Your task to perform on an android device: Show the shopping cart on bestbuy.com. Add "razer blade" to the cart on bestbuy.com, then select checkout. Image 0: 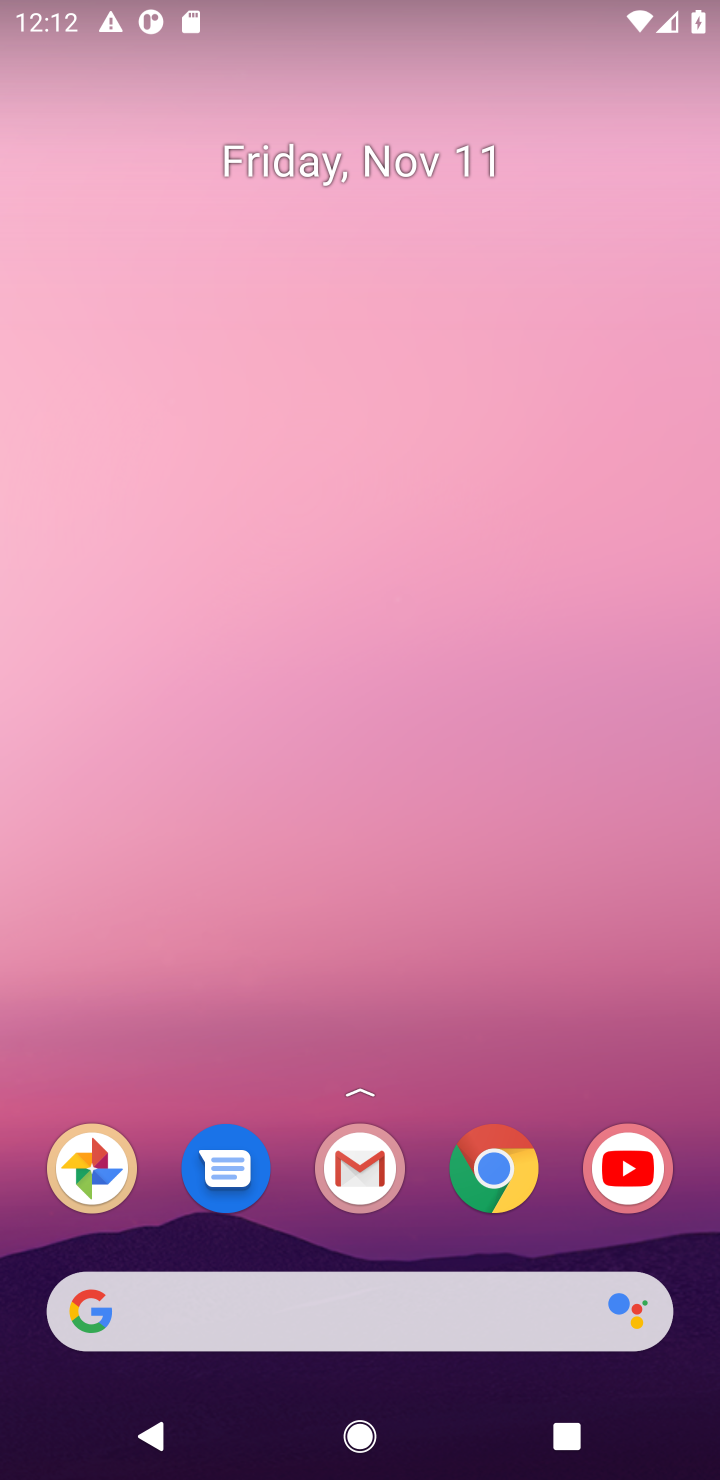
Step 0: click (481, 1174)
Your task to perform on an android device: Show the shopping cart on bestbuy.com. Add "razer blade" to the cart on bestbuy.com, then select checkout. Image 1: 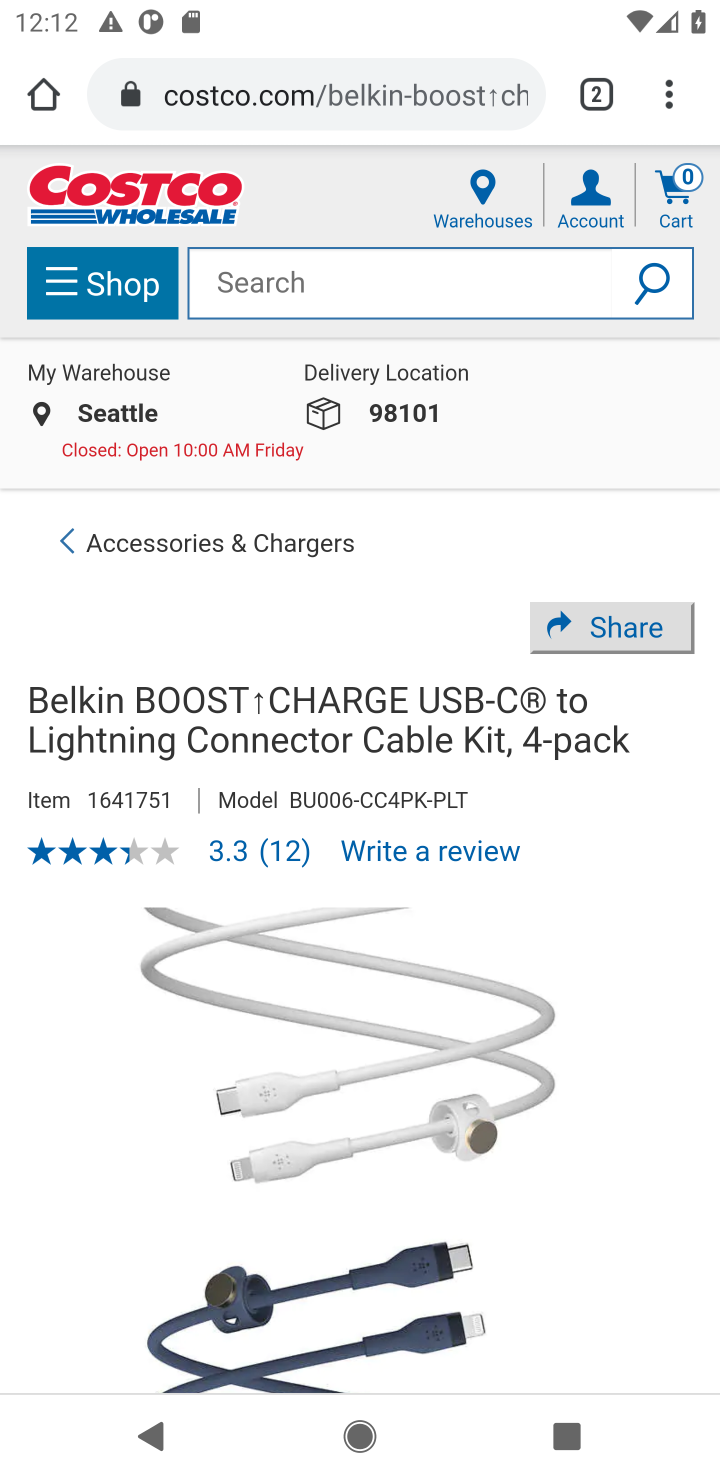
Step 1: click (340, 93)
Your task to perform on an android device: Show the shopping cart on bestbuy.com. Add "razer blade" to the cart on bestbuy.com, then select checkout. Image 2: 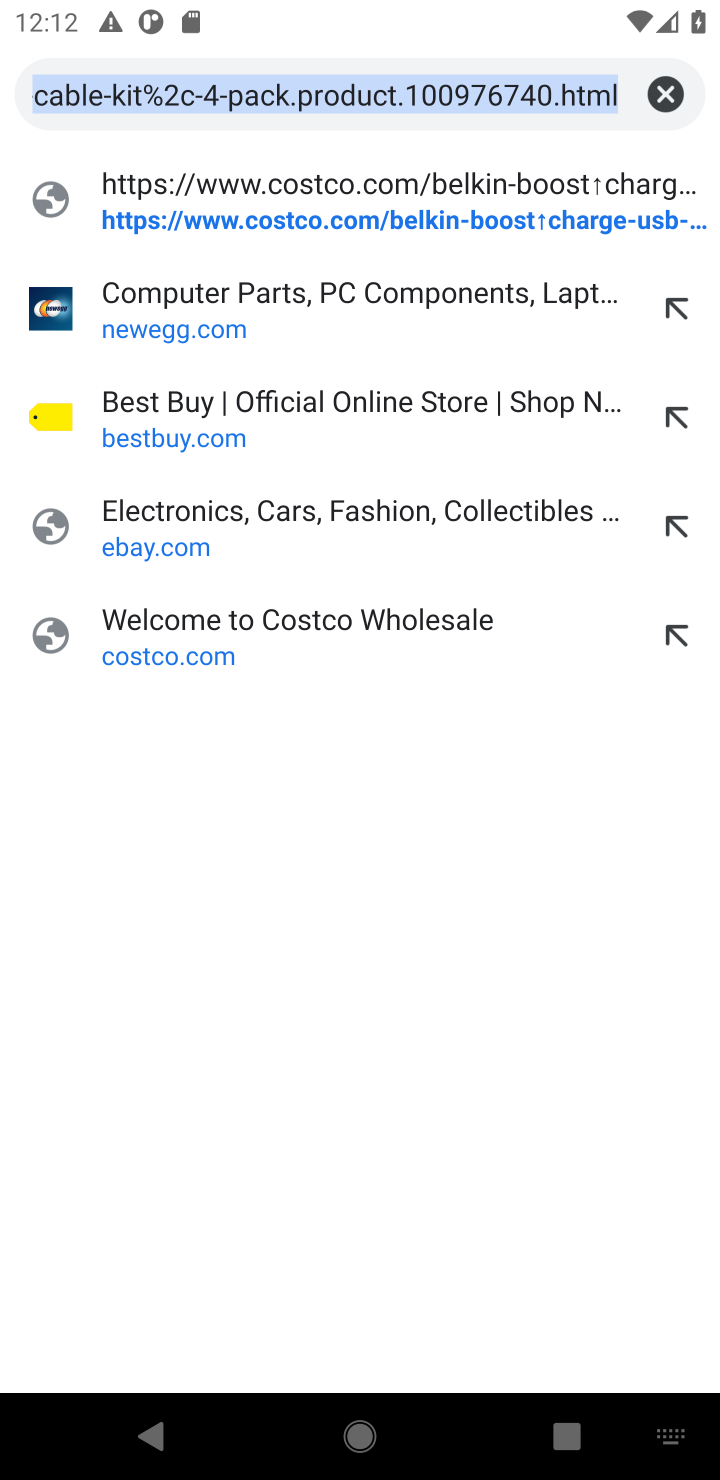
Step 2: click (148, 422)
Your task to perform on an android device: Show the shopping cart on bestbuy.com. Add "razer blade" to the cart on bestbuy.com, then select checkout. Image 3: 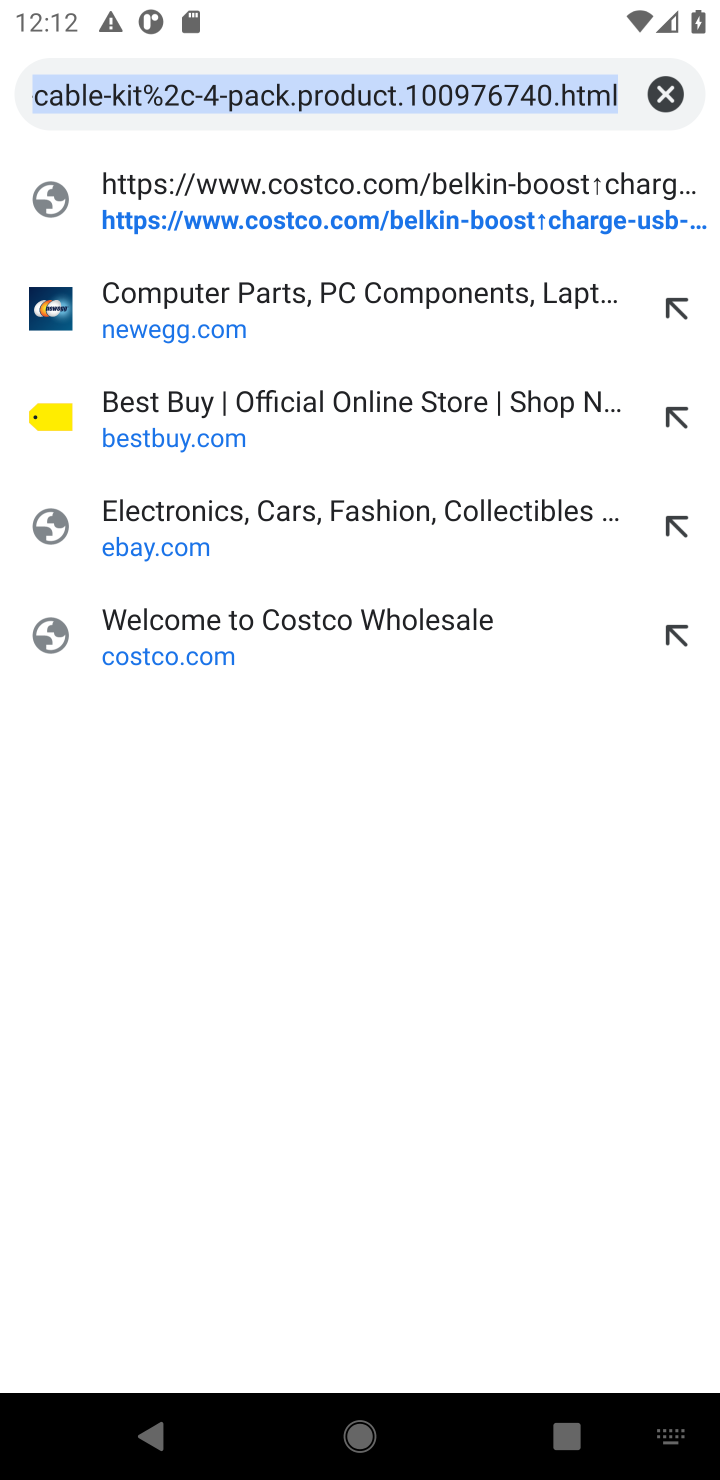
Step 3: click (148, 422)
Your task to perform on an android device: Show the shopping cart on bestbuy.com. Add "razer blade" to the cart on bestbuy.com, then select checkout. Image 4: 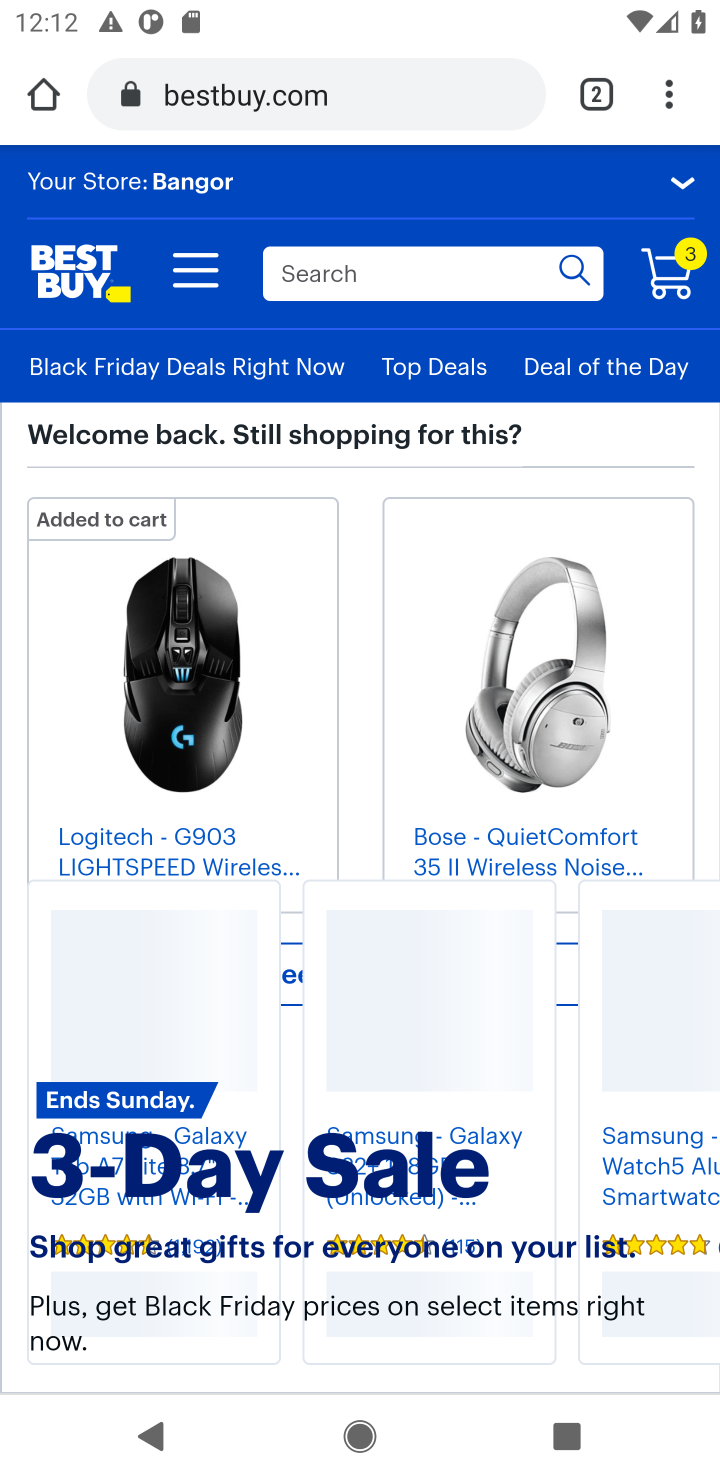
Step 4: click (328, 288)
Your task to perform on an android device: Show the shopping cart on bestbuy.com. Add "razer blade" to the cart on bestbuy.com, then select checkout. Image 5: 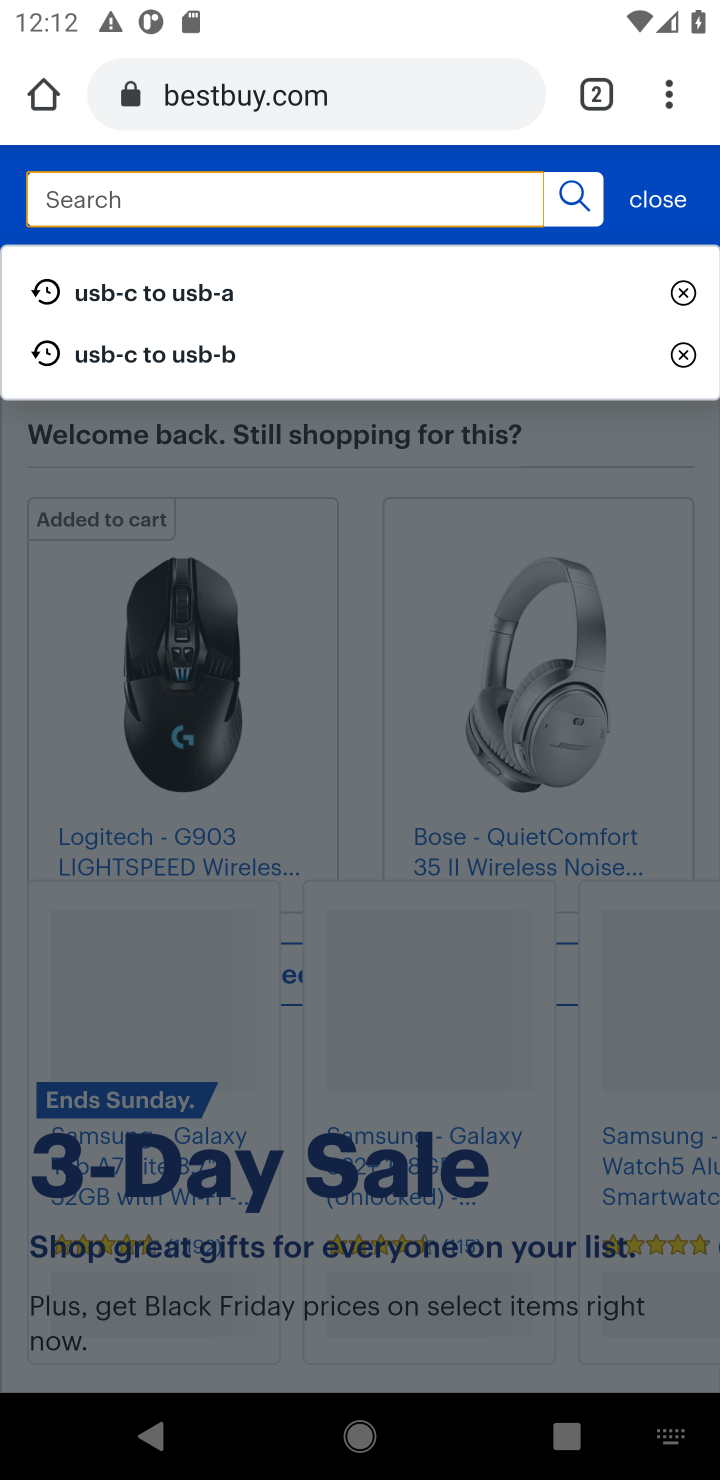
Step 5: click (639, 210)
Your task to perform on an android device: Show the shopping cart on bestbuy.com. Add "razer blade" to the cart on bestbuy.com, then select checkout. Image 6: 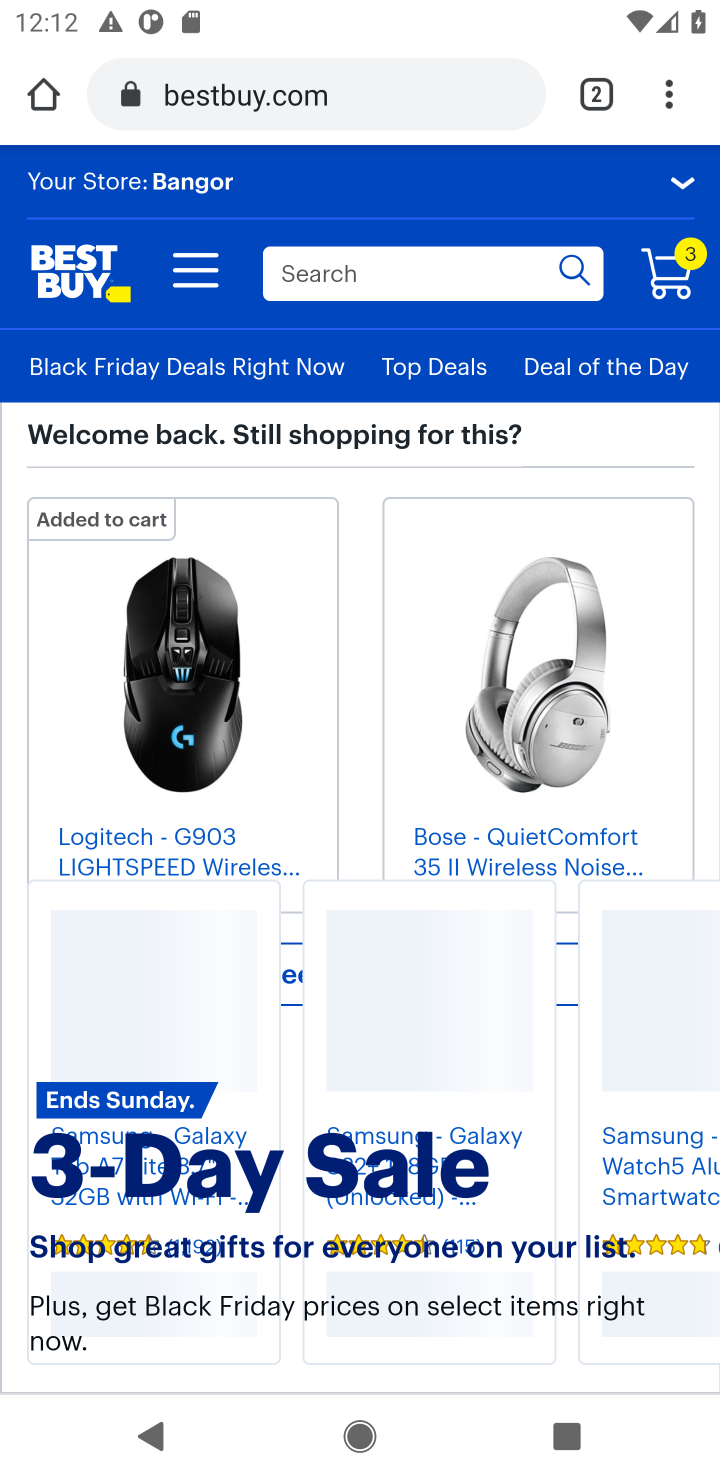
Step 6: click (661, 251)
Your task to perform on an android device: Show the shopping cart on bestbuy.com. Add "razer blade" to the cart on bestbuy.com, then select checkout. Image 7: 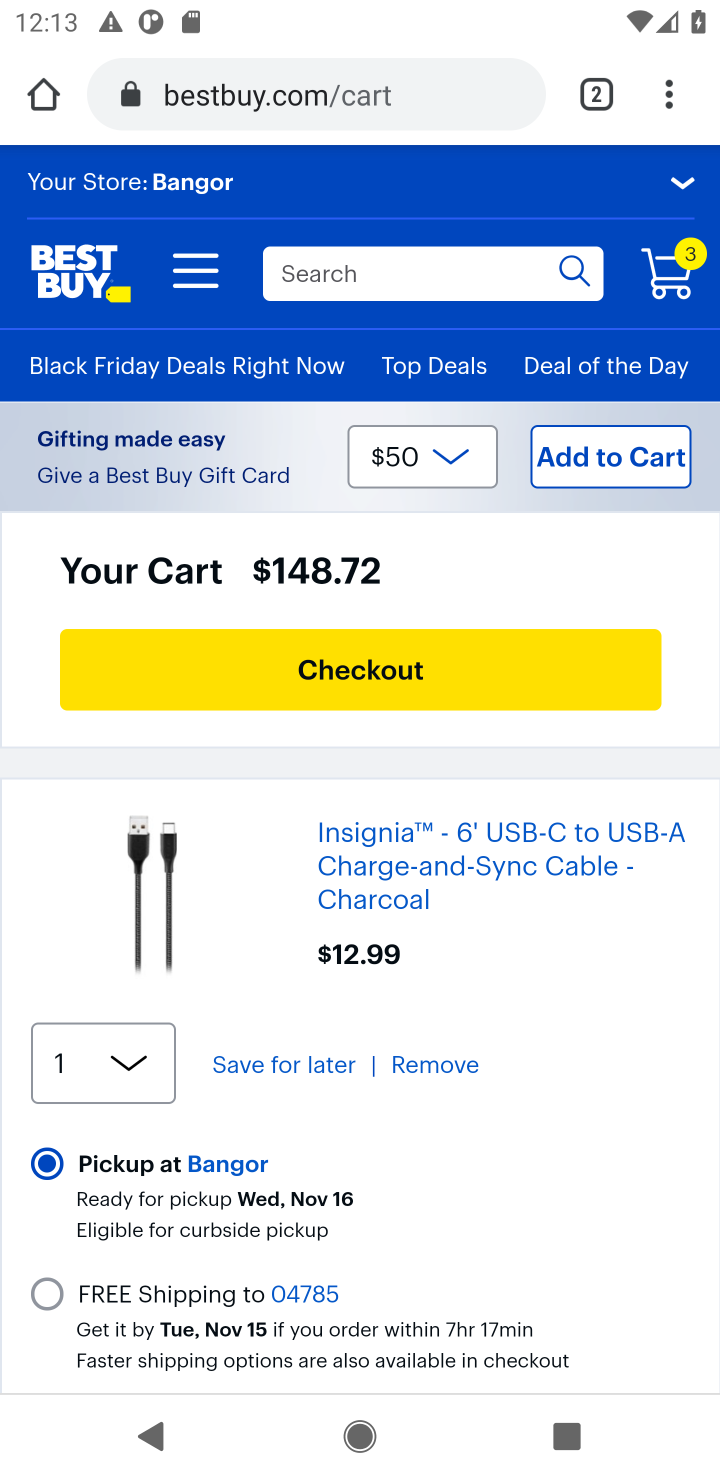
Step 7: drag from (475, 1022) to (494, 707)
Your task to perform on an android device: Show the shopping cart on bestbuy.com. Add "razer blade" to the cart on bestbuy.com, then select checkout. Image 8: 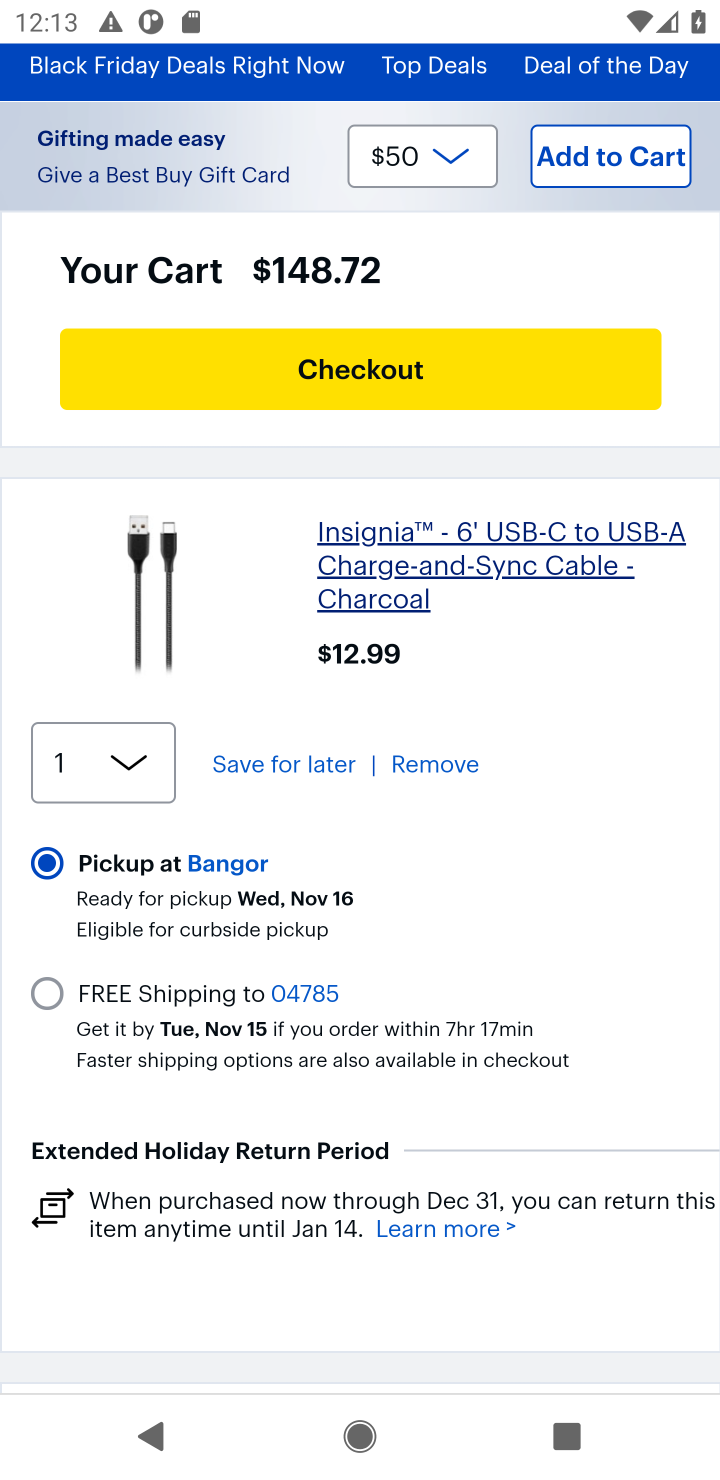
Step 8: drag from (564, 360) to (588, 876)
Your task to perform on an android device: Show the shopping cart on bestbuy.com. Add "razer blade" to the cart on bestbuy.com, then select checkout. Image 9: 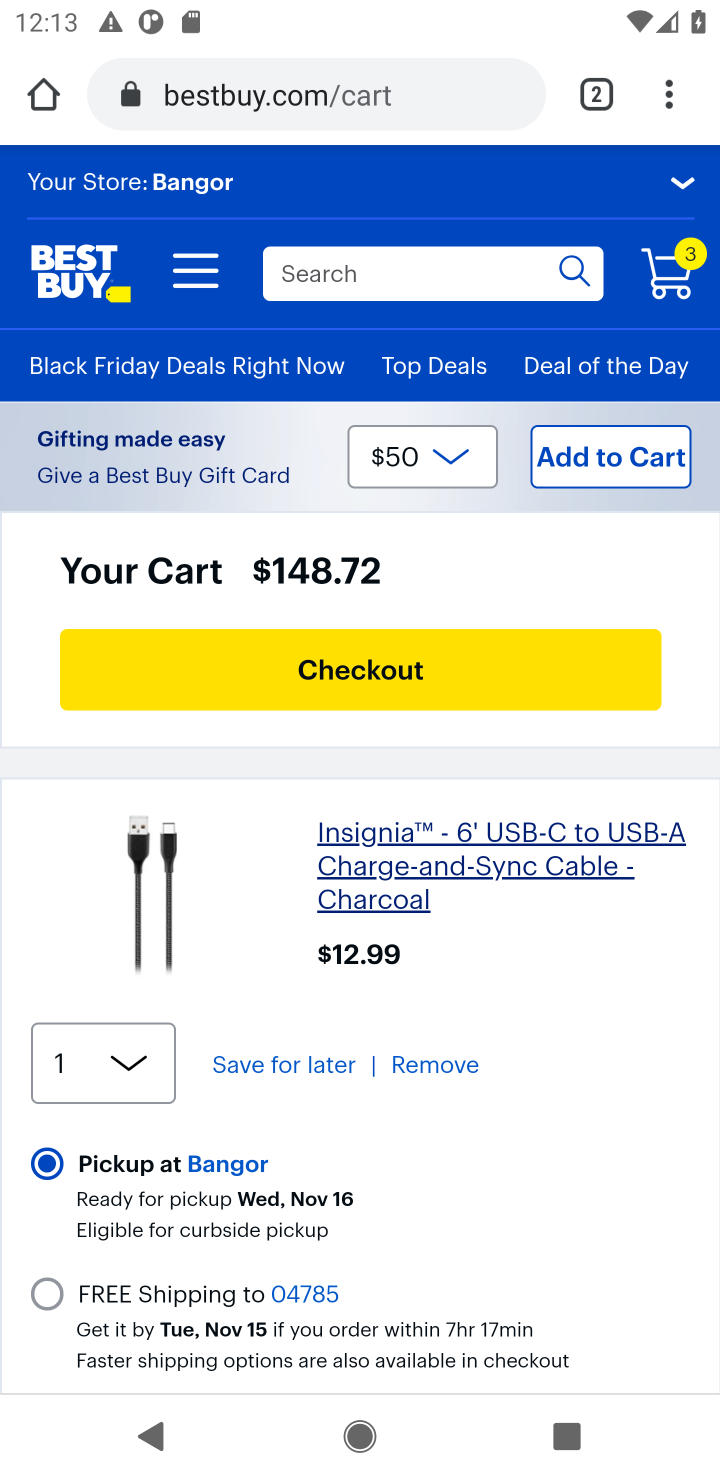
Step 9: click (309, 282)
Your task to perform on an android device: Show the shopping cart on bestbuy.com. Add "razer blade" to the cart on bestbuy.com, then select checkout. Image 10: 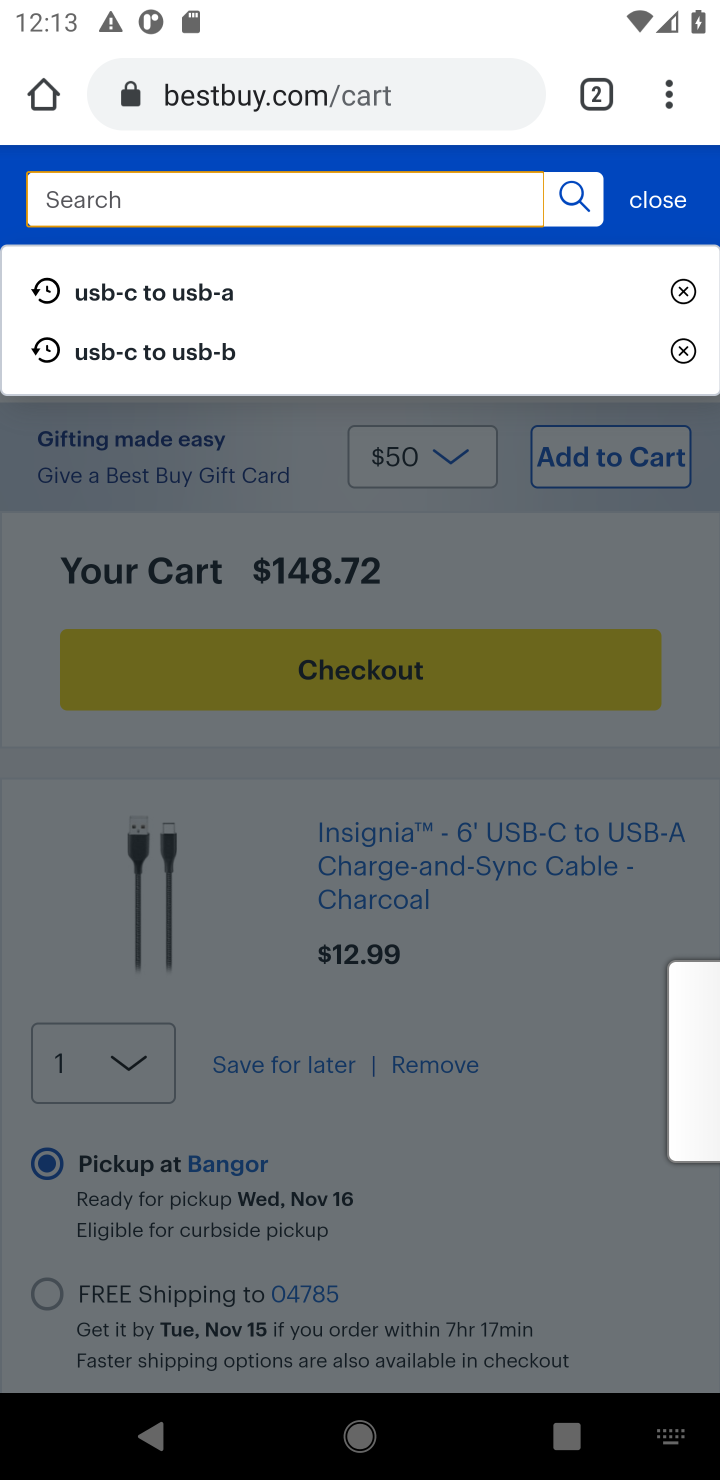
Step 10: type "razer blade"
Your task to perform on an android device: Show the shopping cart on bestbuy.com. Add "razer blade" to the cart on bestbuy.com, then select checkout. Image 11: 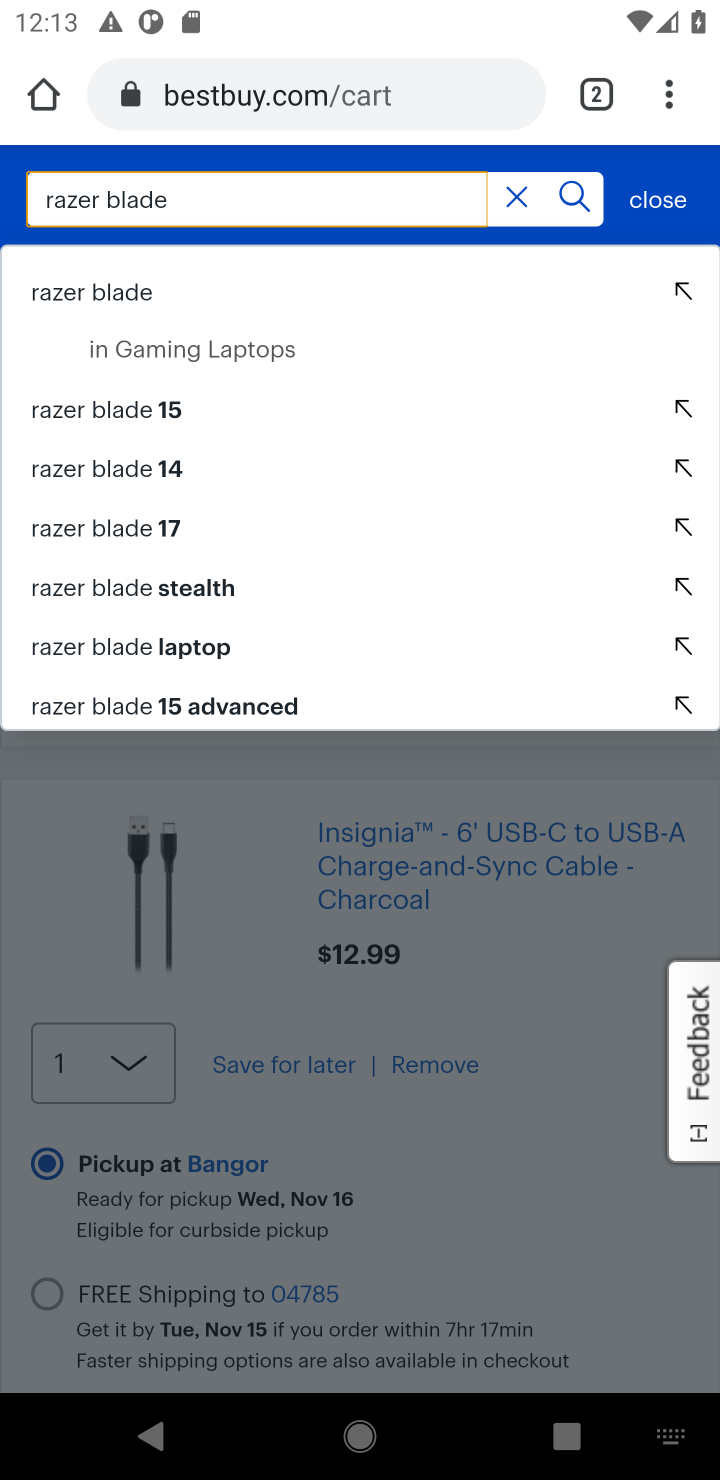
Step 11: click (84, 304)
Your task to perform on an android device: Show the shopping cart on bestbuy.com. Add "razer blade" to the cart on bestbuy.com, then select checkout. Image 12: 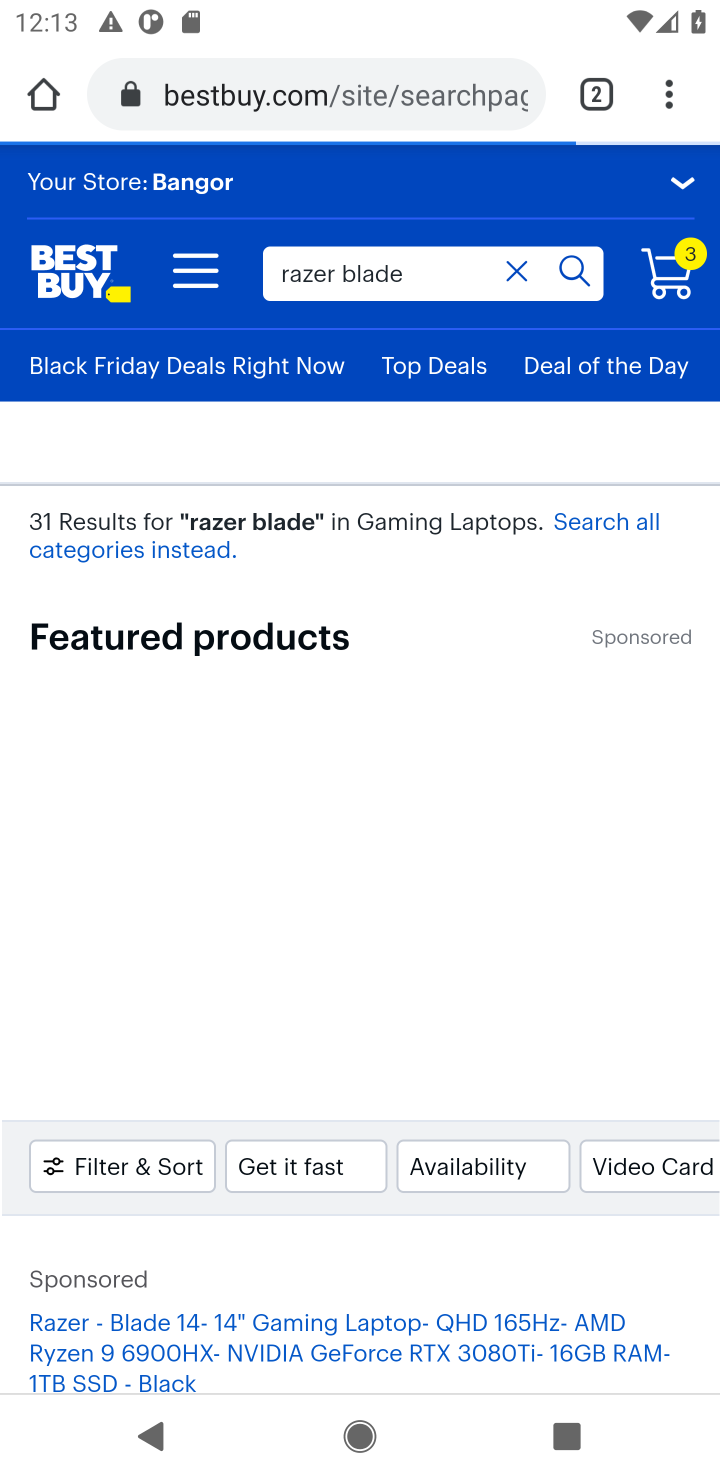
Step 12: click (676, 279)
Your task to perform on an android device: Show the shopping cart on bestbuy.com. Add "razer blade" to the cart on bestbuy.com, then select checkout. Image 13: 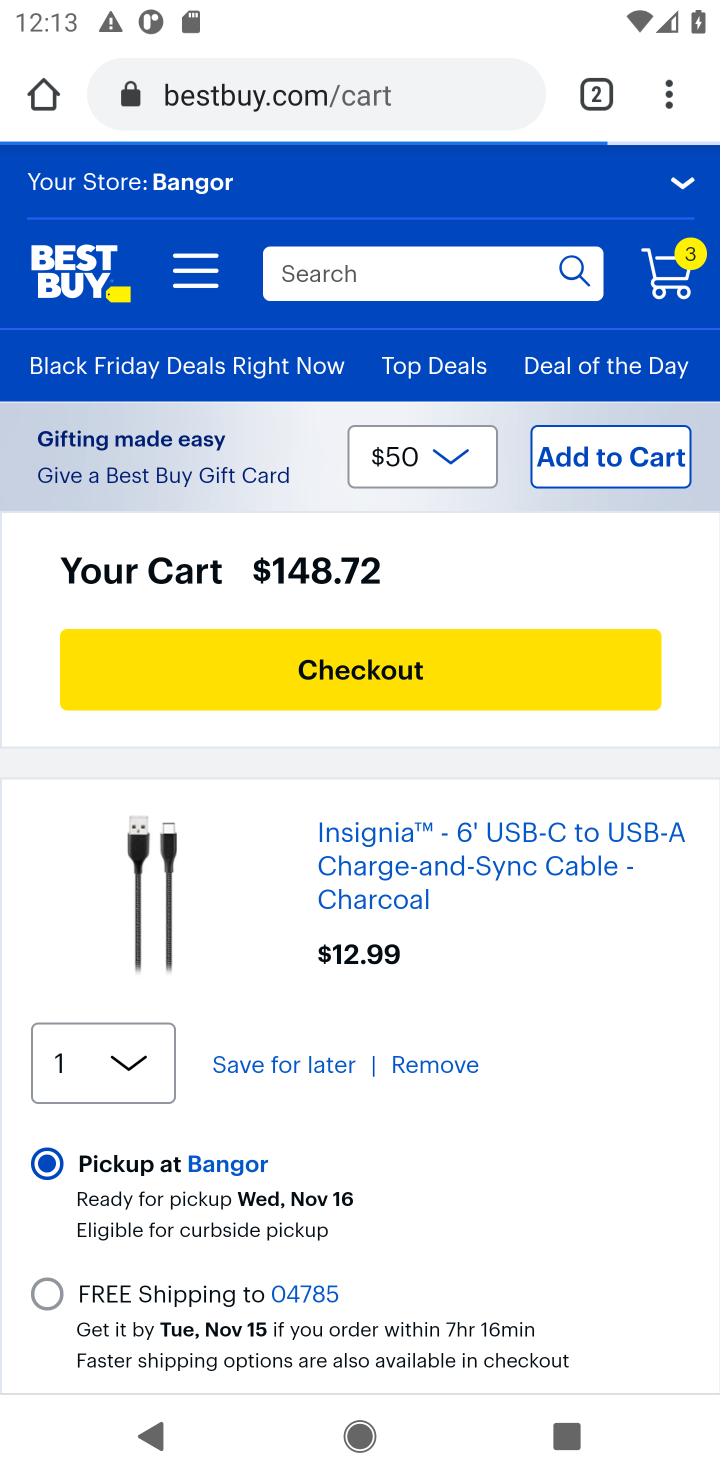
Step 13: click (359, 677)
Your task to perform on an android device: Show the shopping cart on bestbuy.com. Add "razer blade" to the cart on bestbuy.com, then select checkout. Image 14: 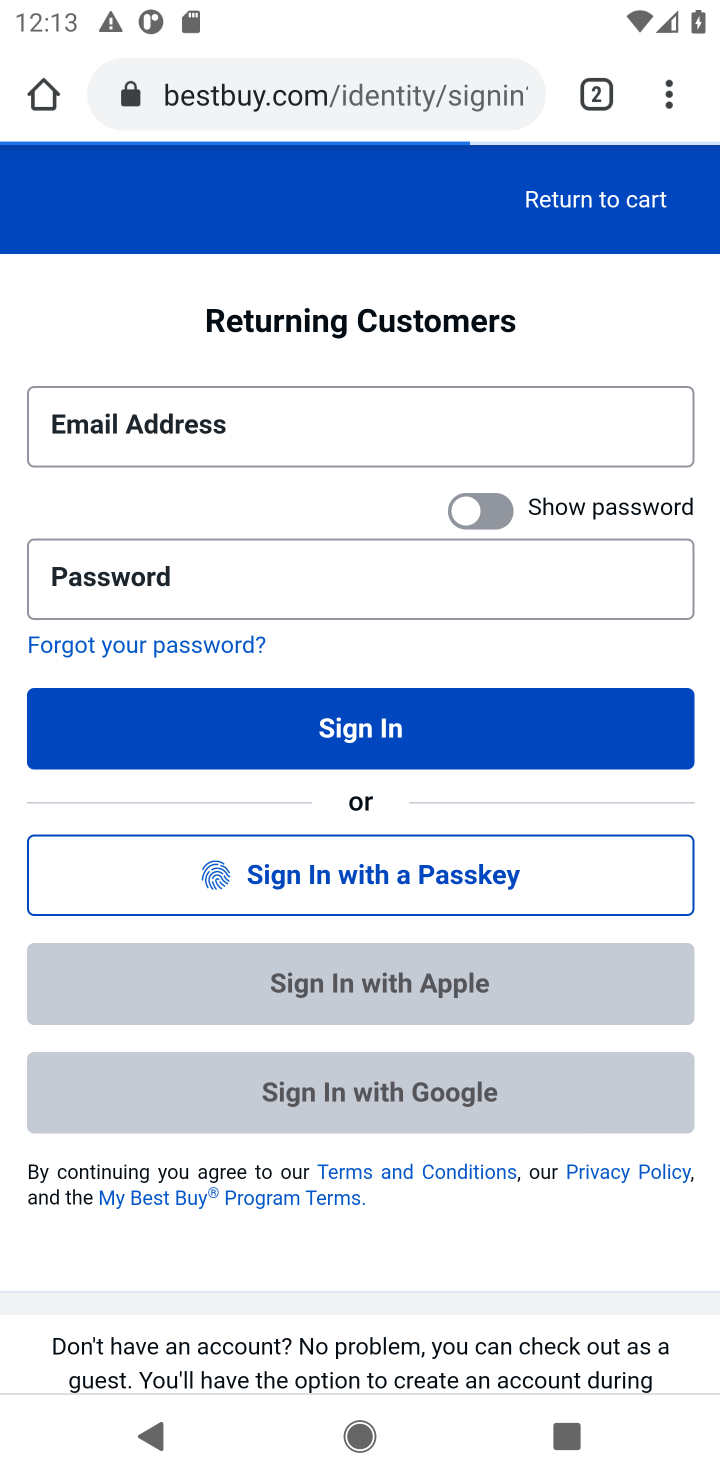
Step 14: task complete